Your task to perform on an android device: clear history in the chrome app Image 0: 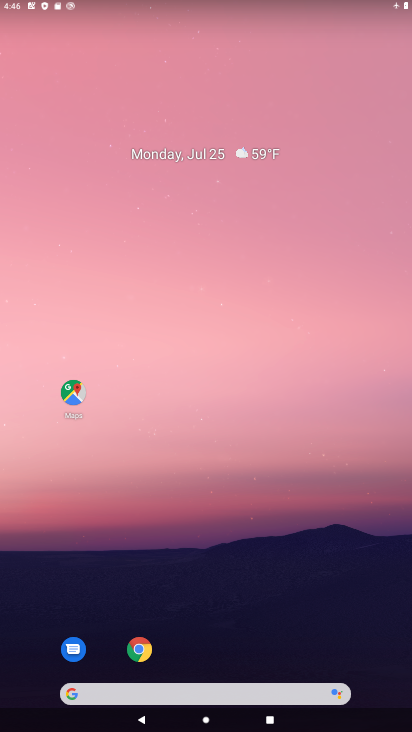
Step 0: drag from (177, 484) to (295, 0)
Your task to perform on an android device: clear history in the chrome app Image 1: 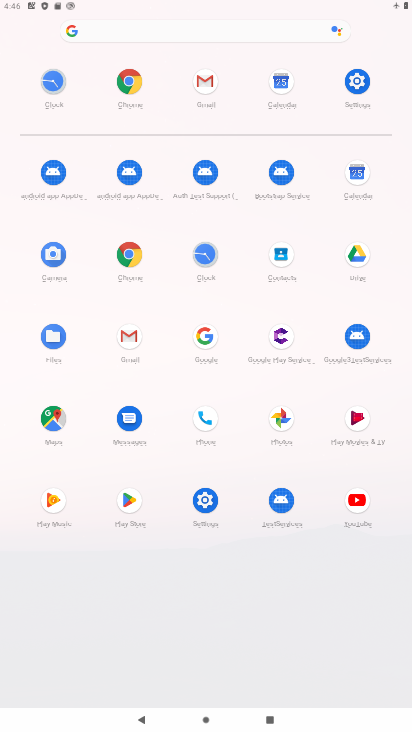
Step 1: click (124, 70)
Your task to perform on an android device: clear history in the chrome app Image 2: 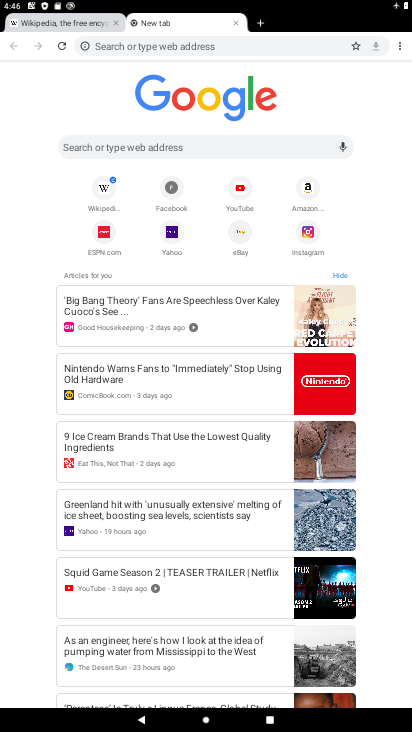
Step 2: drag from (392, 45) to (322, 130)
Your task to perform on an android device: clear history in the chrome app Image 3: 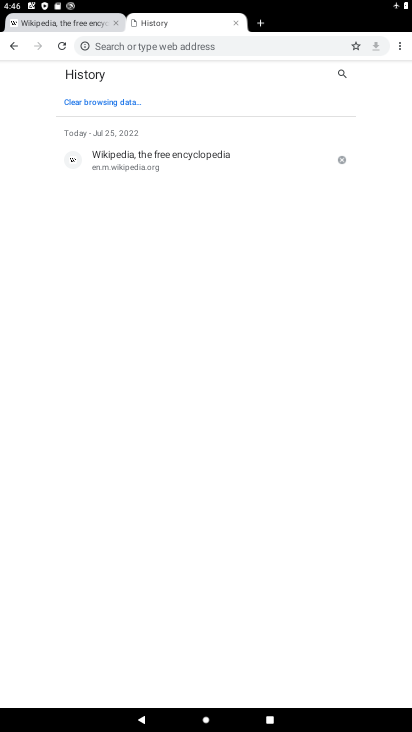
Step 3: click (123, 100)
Your task to perform on an android device: clear history in the chrome app Image 4: 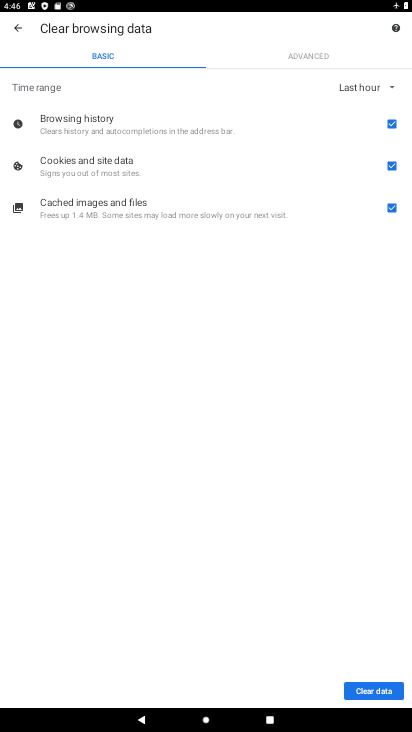
Step 4: click (107, 138)
Your task to perform on an android device: clear history in the chrome app Image 5: 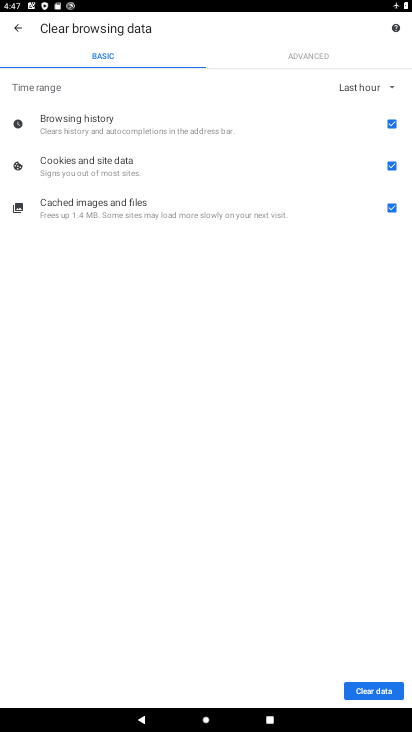
Step 5: click (394, 690)
Your task to perform on an android device: clear history in the chrome app Image 6: 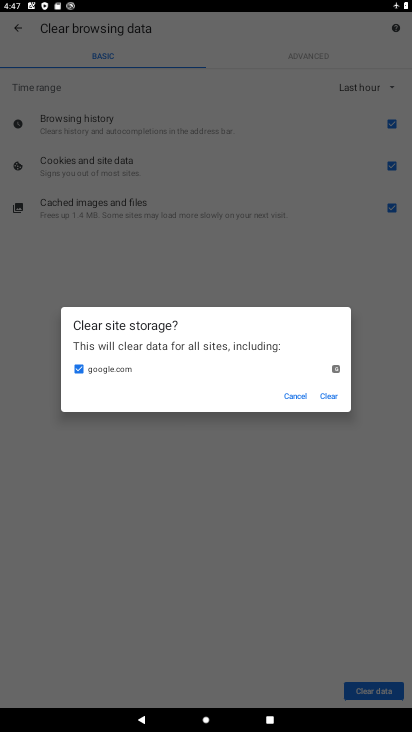
Step 6: click (326, 391)
Your task to perform on an android device: clear history in the chrome app Image 7: 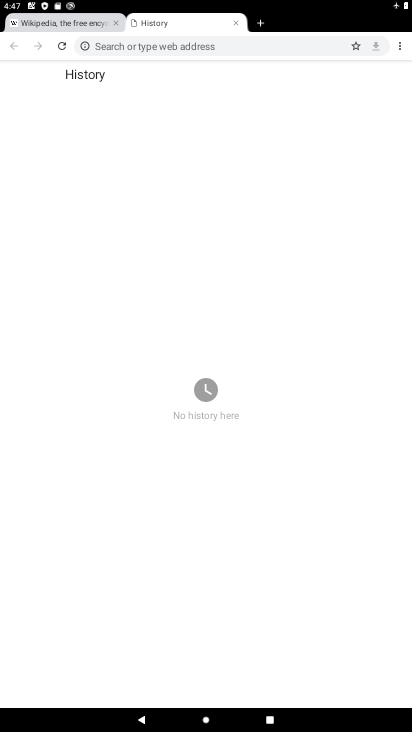
Step 7: task complete